Your task to perform on an android device: turn notification dots off Image 0: 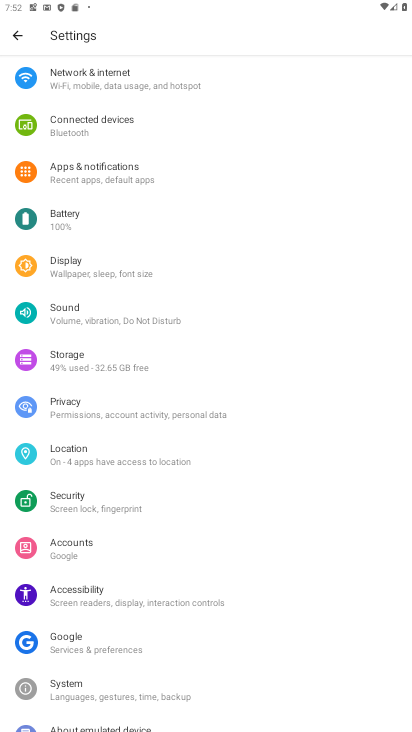
Step 0: click (192, 178)
Your task to perform on an android device: turn notification dots off Image 1: 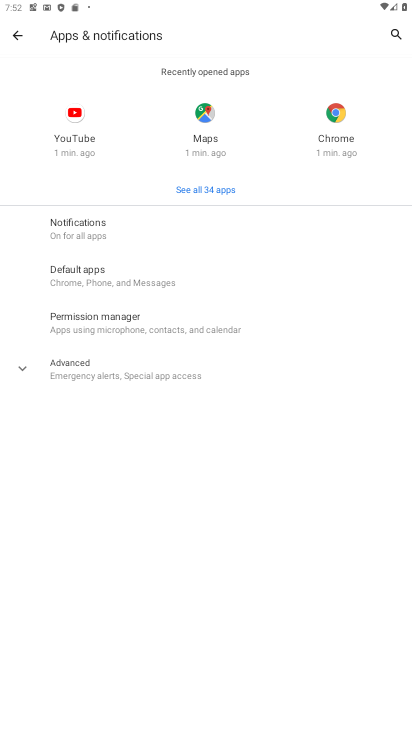
Step 1: click (82, 231)
Your task to perform on an android device: turn notification dots off Image 2: 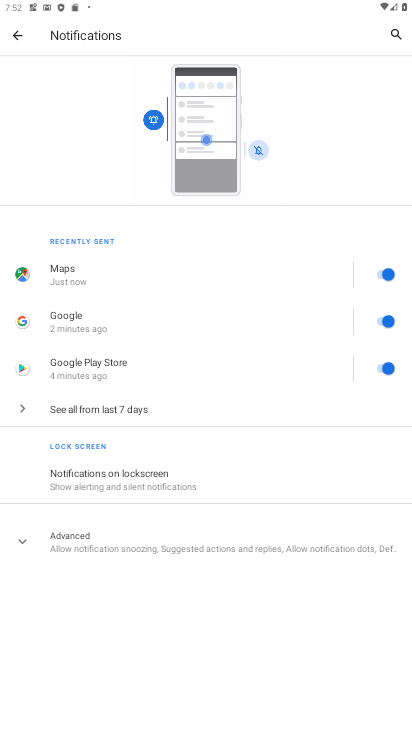
Step 2: click (153, 556)
Your task to perform on an android device: turn notification dots off Image 3: 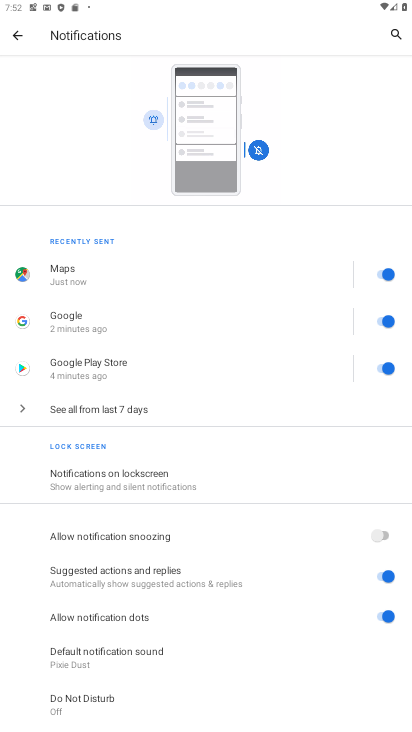
Step 3: click (378, 607)
Your task to perform on an android device: turn notification dots off Image 4: 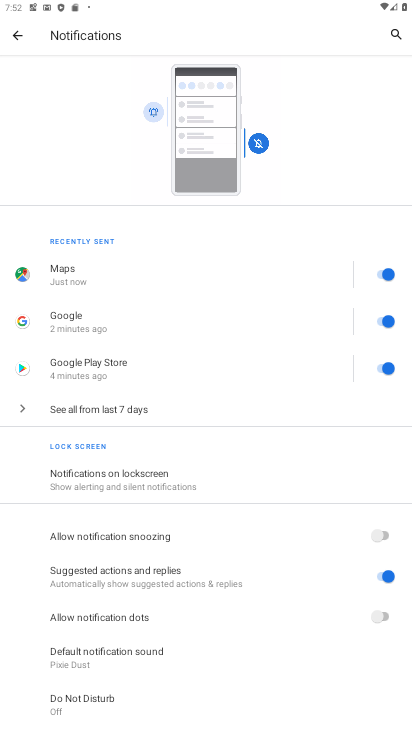
Step 4: task complete